Your task to perform on an android device: see sites visited before in the chrome app Image 0: 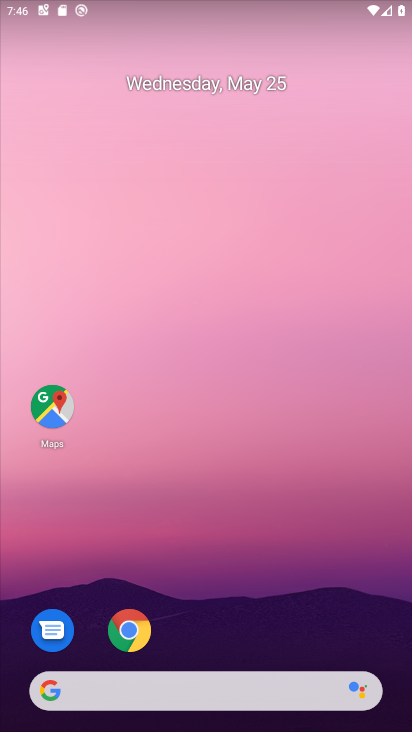
Step 0: click (129, 632)
Your task to perform on an android device: see sites visited before in the chrome app Image 1: 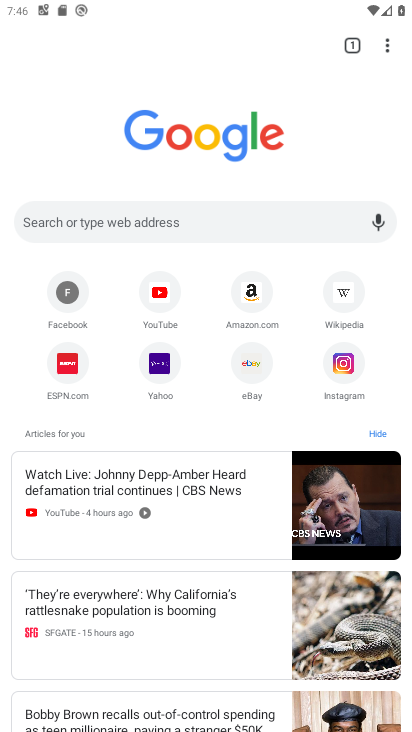
Step 1: click (379, 41)
Your task to perform on an android device: see sites visited before in the chrome app Image 2: 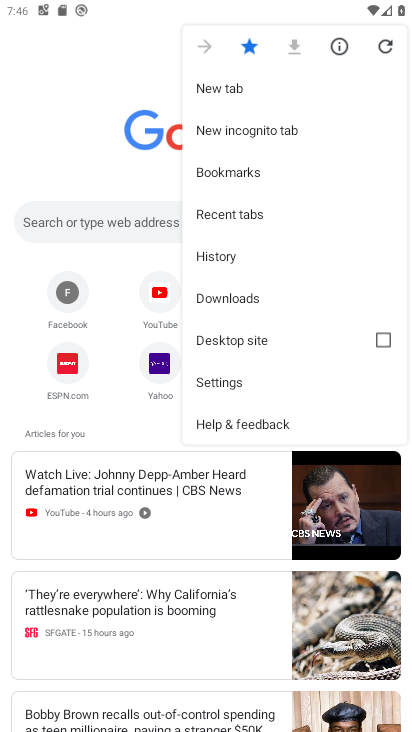
Step 2: click (228, 254)
Your task to perform on an android device: see sites visited before in the chrome app Image 3: 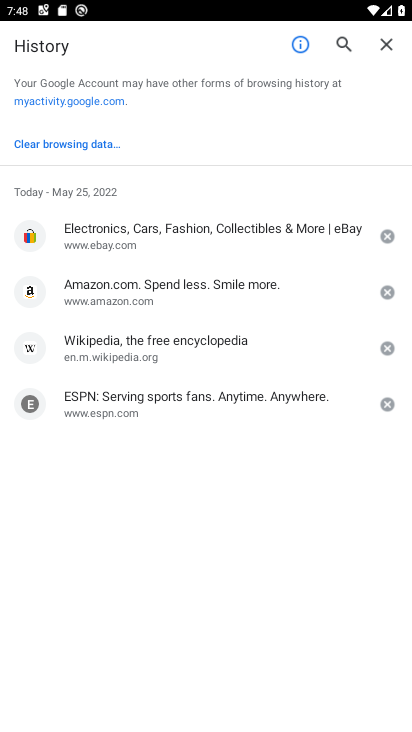
Step 3: task complete